Your task to perform on an android device: What is the news today? Image 0: 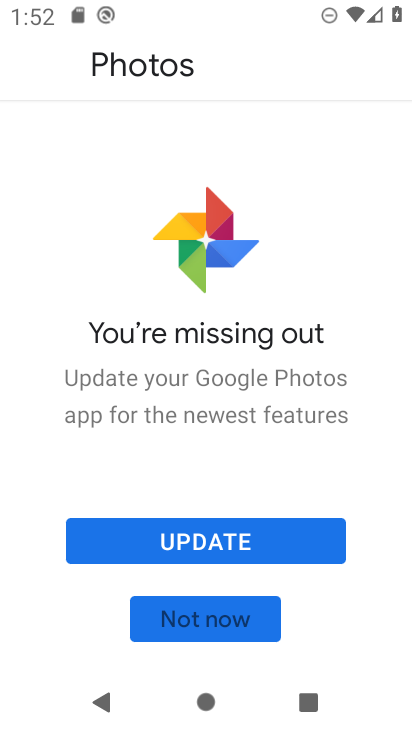
Step 0: press back button
Your task to perform on an android device: What is the news today? Image 1: 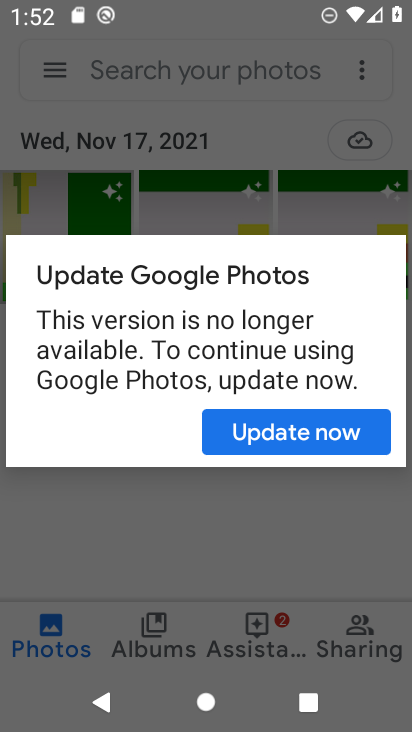
Step 1: press home button
Your task to perform on an android device: What is the news today? Image 2: 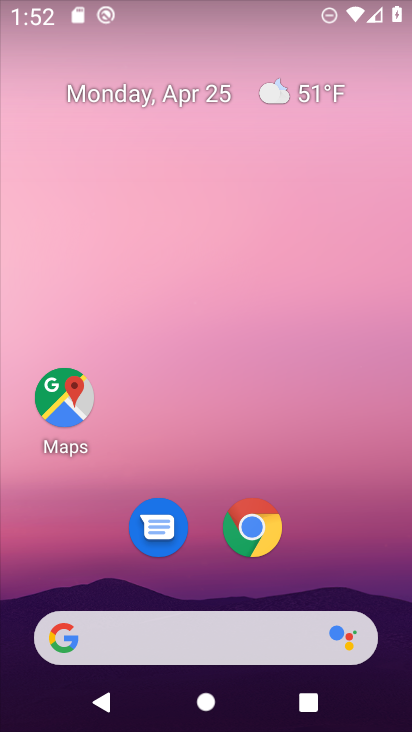
Step 2: drag from (314, 520) to (197, 40)
Your task to perform on an android device: What is the news today? Image 3: 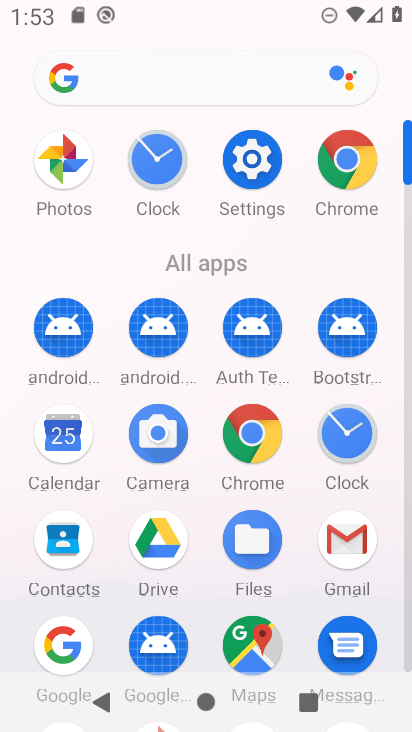
Step 3: click (201, 72)
Your task to perform on an android device: What is the news today? Image 4: 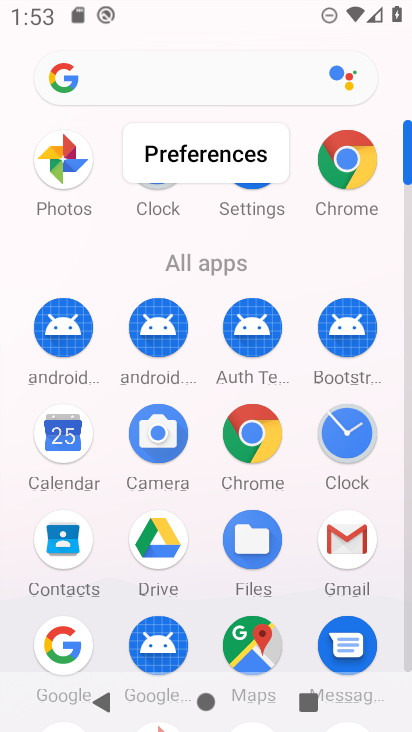
Step 4: click (191, 81)
Your task to perform on an android device: What is the news today? Image 5: 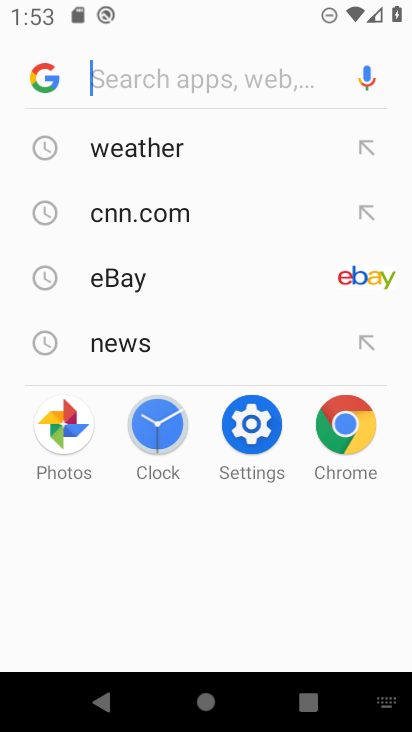
Step 5: click (134, 321)
Your task to perform on an android device: What is the news today? Image 6: 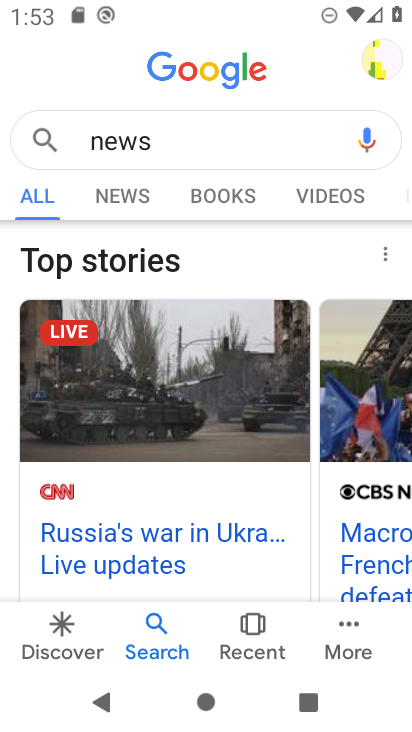
Step 6: task complete